Your task to perform on an android device: turn pop-ups on in chrome Image 0: 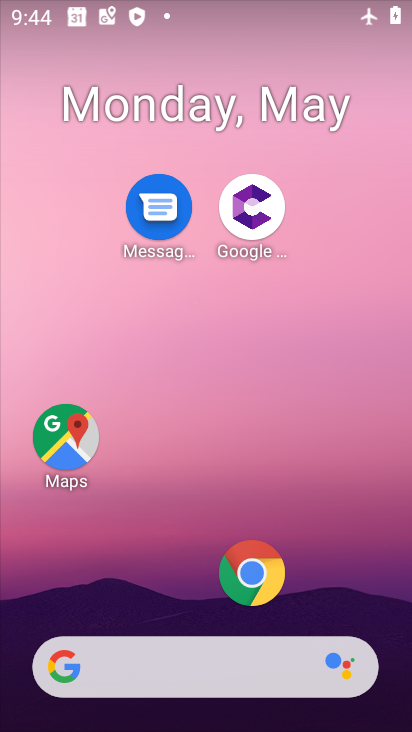
Step 0: click (269, 586)
Your task to perform on an android device: turn pop-ups on in chrome Image 1: 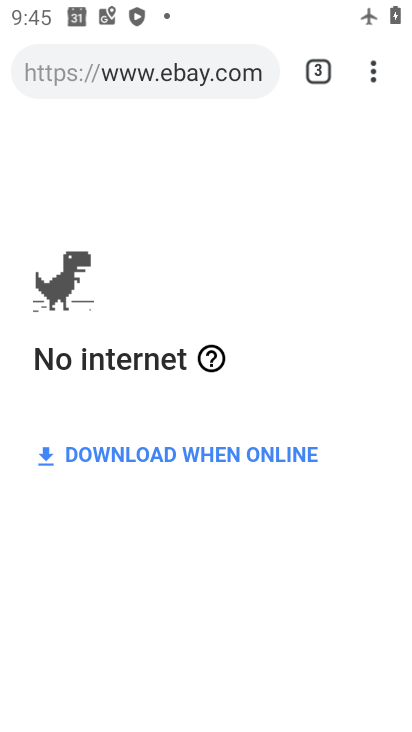
Step 1: click (381, 72)
Your task to perform on an android device: turn pop-ups on in chrome Image 2: 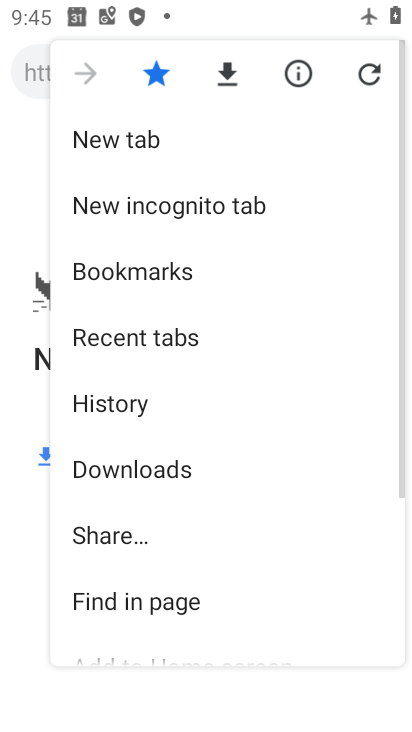
Step 2: drag from (175, 491) to (195, 153)
Your task to perform on an android device: turn pop-ups on in chrome Image 3: 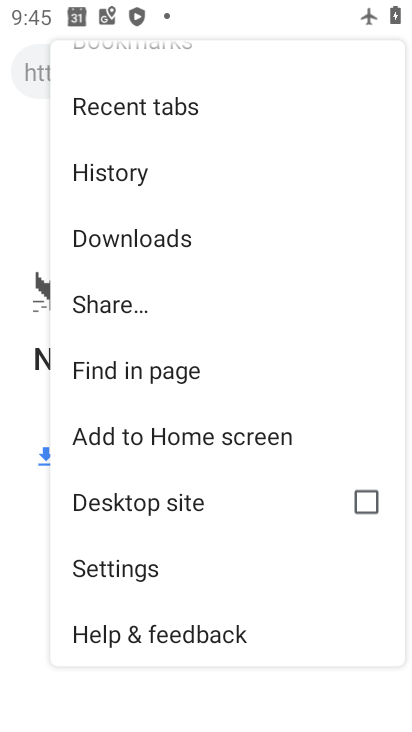
Step 3: click (145, 562)
Your task to perform on an android device: turn pop-ups on in chrome Image 4: 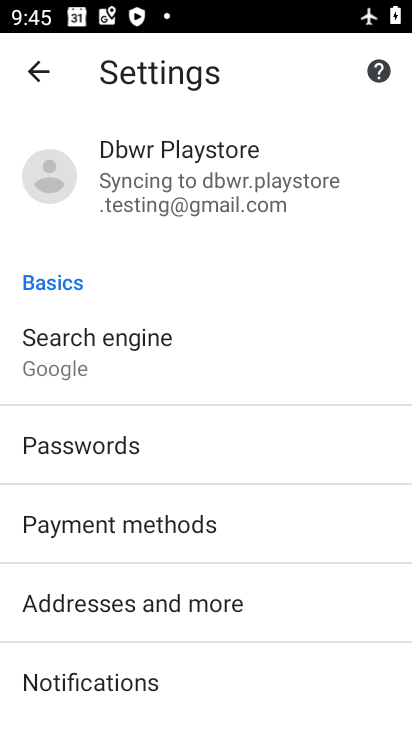
Step 4: drag from (169, 644) to (281, 264)
Your task to perform on an android device: turn pop-ups on in chrome Image 5: 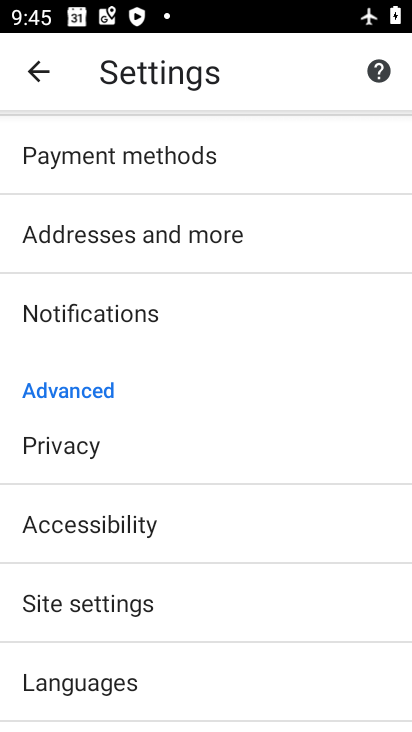
Step 5: click (124, 604)
Your task to perform on an android device: turn pop-ups on in chrome Image 6: 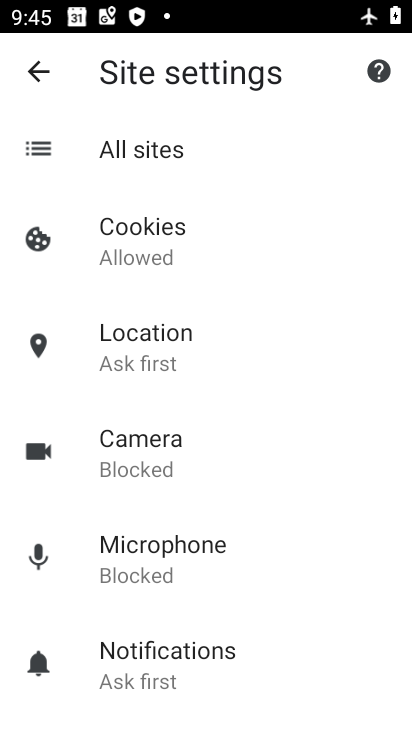
Step 6: drag from (168, 627) to (284, 253)
Your task to perform on an android device: turn pop-ups on in chrome Image 7: 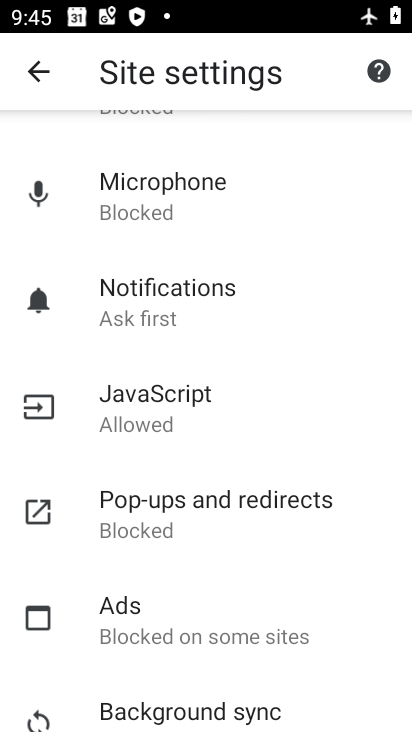
Step 7: click (192, 506)
Your task to perform on an android device: turn pop-ups on in chrome Image 8: 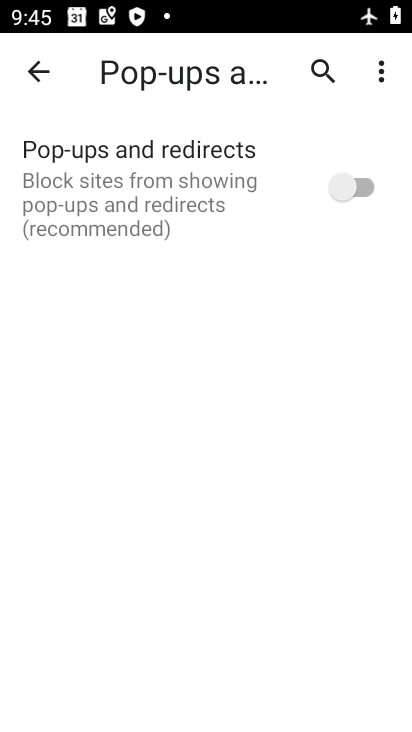
Step 8: click (303, 205)
Your task to perform on an android device: turn pop-ups on in chrome Image 9: 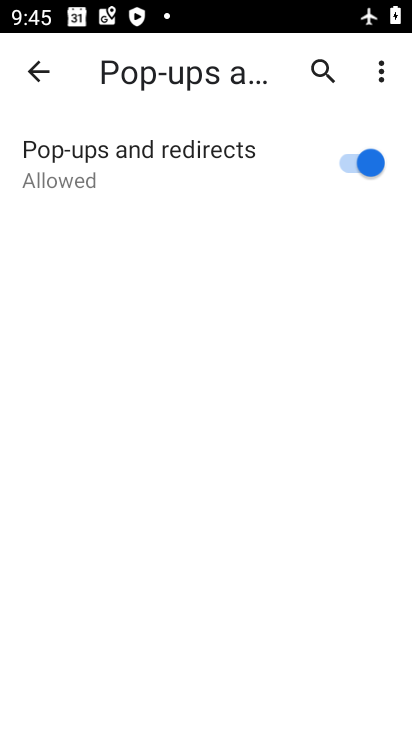
Step 9: task complete